Your task to perform on an android device: Go to settings Image 0: 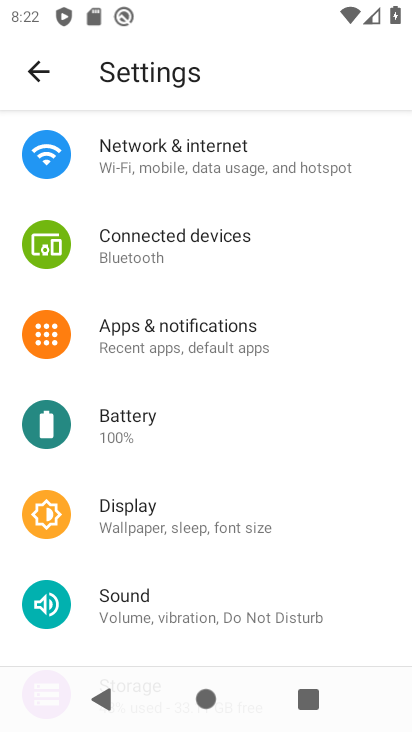
Step 0: task complete